Your task to perform on an android device: show emergency info Image 0: 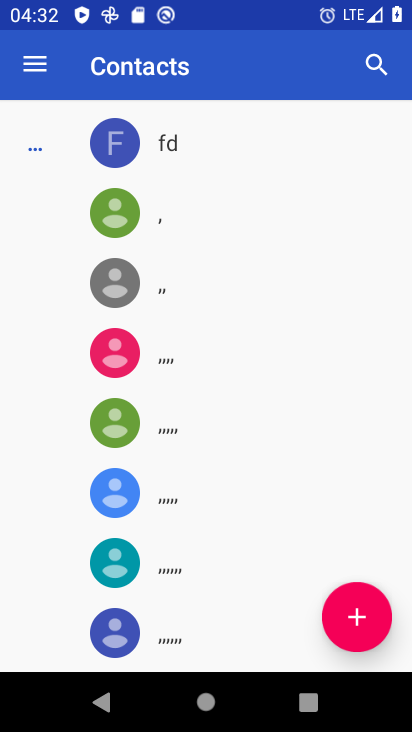
Step 0: drag from (197, 592) to (218, 303)
Your task to perform on an android device: show emergency info Image 1: 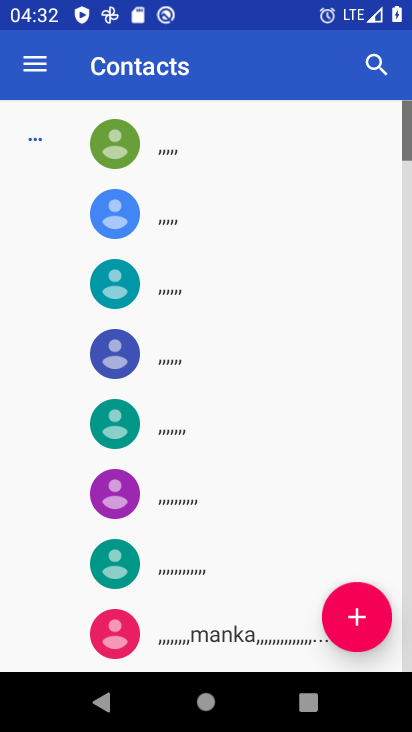
Step 1: press home button
Your task to perform on an android device: show emergency info Image 2: 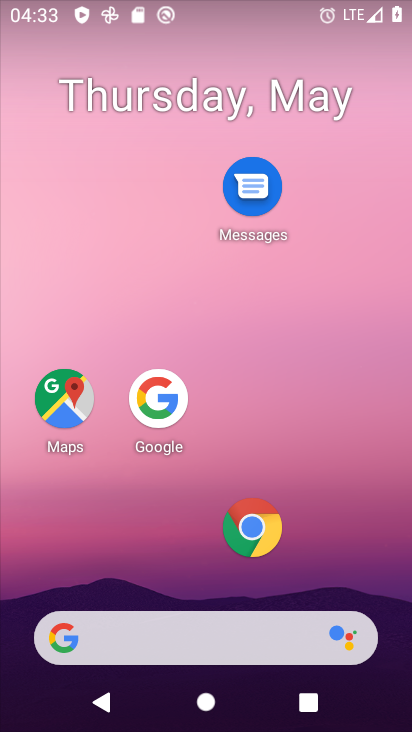
Step 2: drag from (193, 567) to (227, 140)
Your task to perform on an android device: show emergency info Image 3: 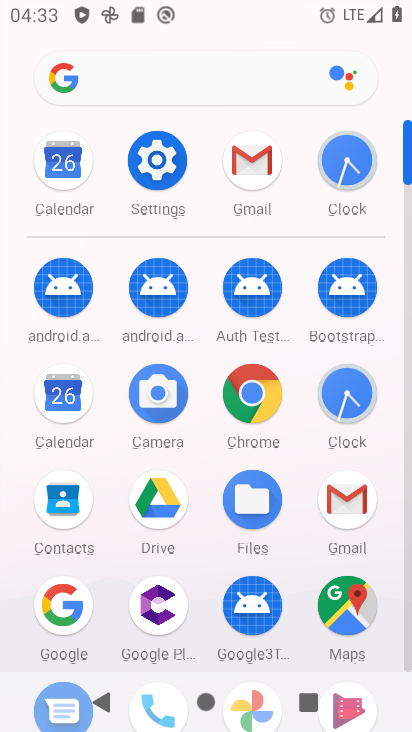
Step 3: click (161, 158)
Your task to perform on an android device: show emergency info Image 4: 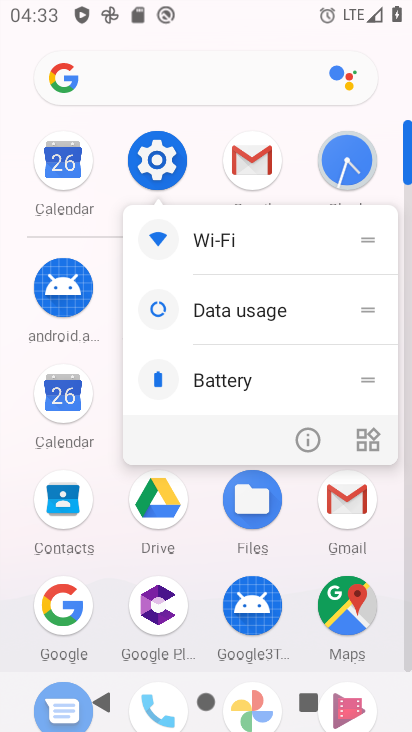
Step 4: click (306, 439)
Your task to perform on an android device: show emergency info Image 5: 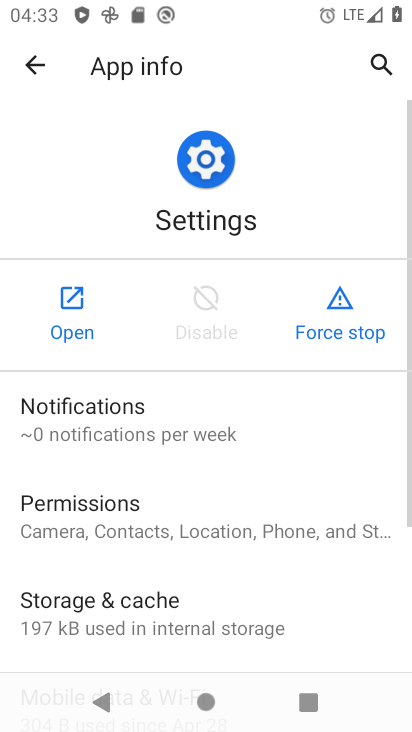
Step 5: click (72, 313)
Your task to perform on an android device: show emergency info Image 6: 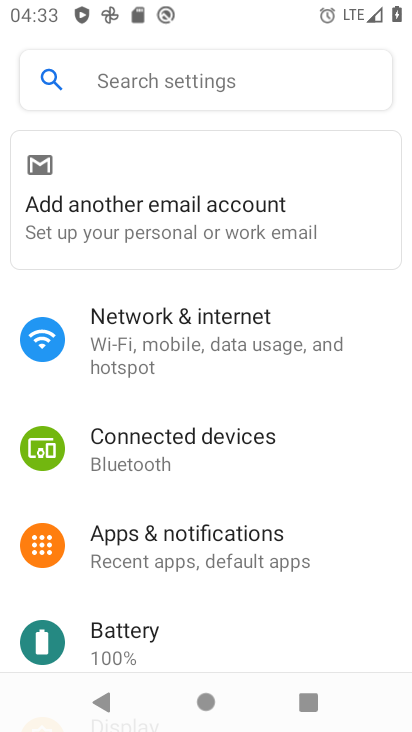
Step 6: drag from (209, 518) to (260, 98)
Your task to perform on an android device: show emergency info Image 7: 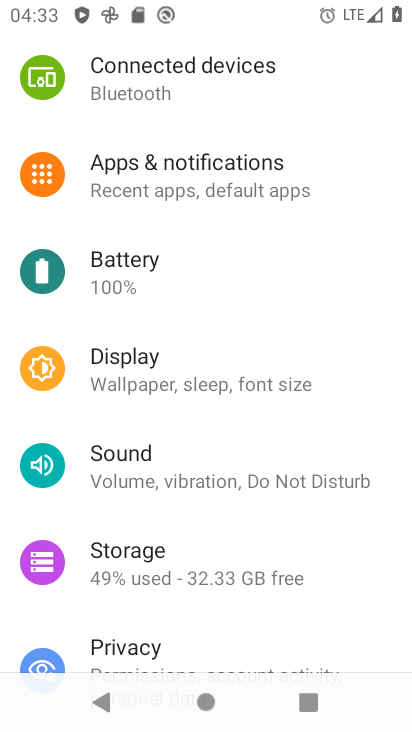
Step 7: drag from (181, 564) to (255, 146)
Your task to perform on an android device: show emergency info Image 8: 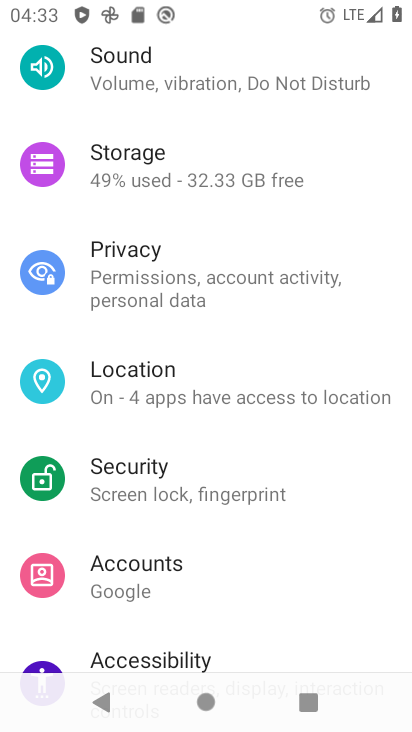
Step 8: click (229, 146)
Your task to perform on an android device: show emergency info Image 9: 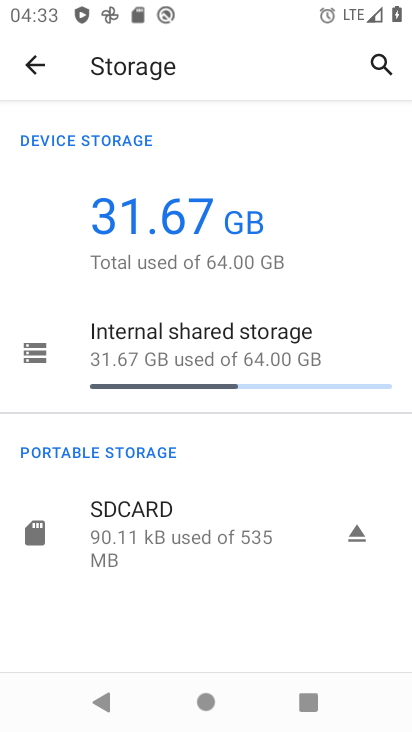
Step 9: click (34, 49)
Your task to perform on an android device: show emergency info Image 10: 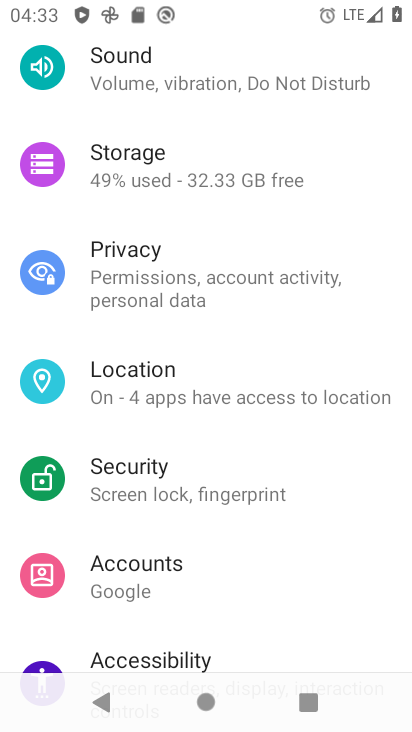
Step 10: drag from (194, 601) to (351, 32)
Your task to perform on an android device: show emergency info Image 11: 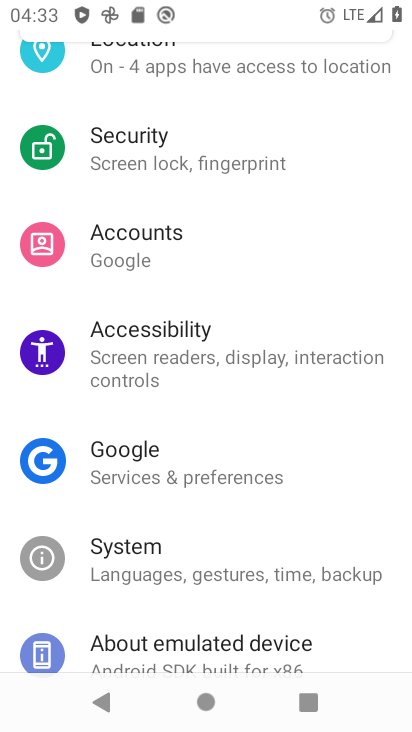
Step 11: drag from (199, 618) to (304, 210)
Your task to perform on an android device: show emergency info Image 12: 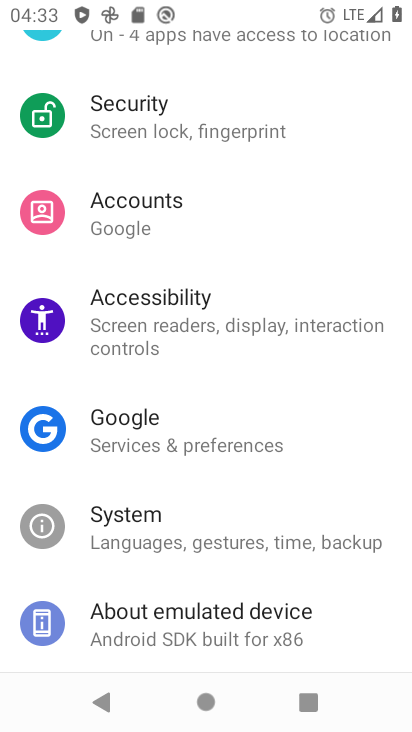
Step 12: click (159, 625)
Your task to perform on an android device: show emergency info Image 13: 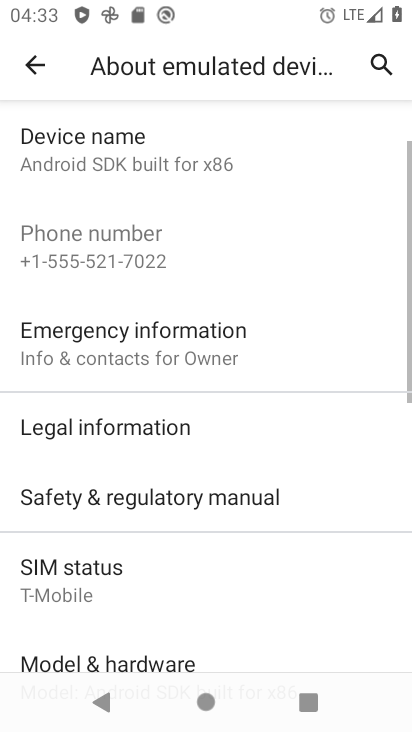
Step 13: drag from (247, 442) to (304, 241)
Your task to perform on an android device: show emergency info Image 14: 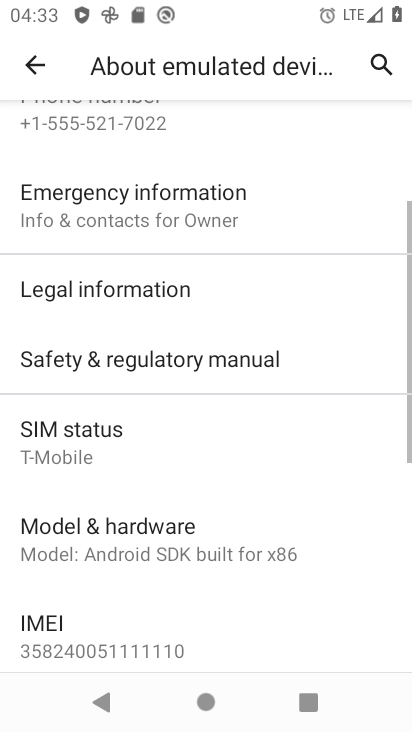
Step 14: click (125, 208)
Your task to perform on an android device: show emergency info Image 15: 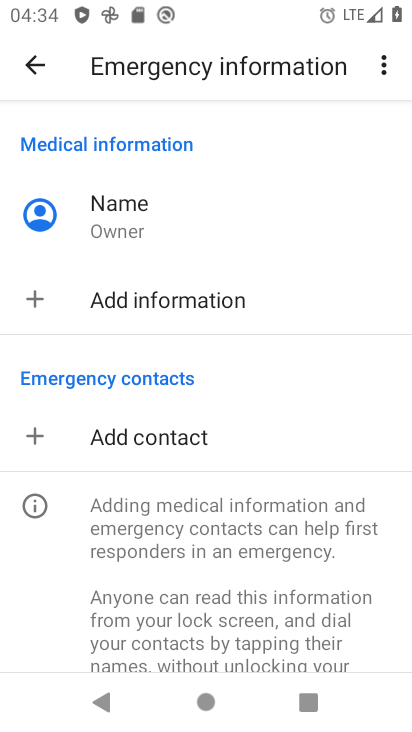
Step 15: task complete